Your task to perform on an android device: Open Google Chrome and open the bookmarks view Image 0: 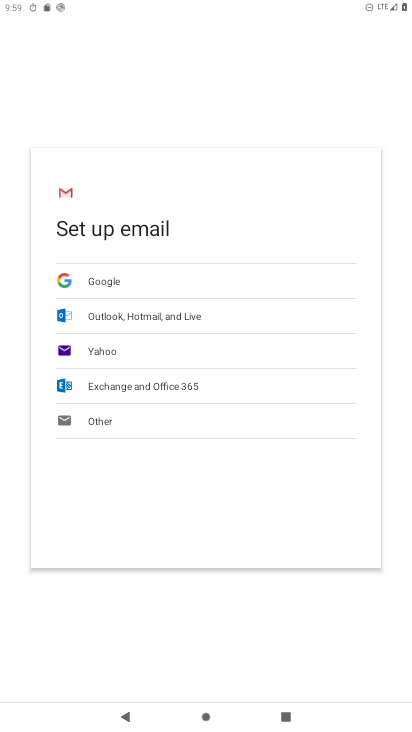
Step 0: press home button
Your task to perform on an android device: Open Google Chrome and open the bookmarks view Image 1: 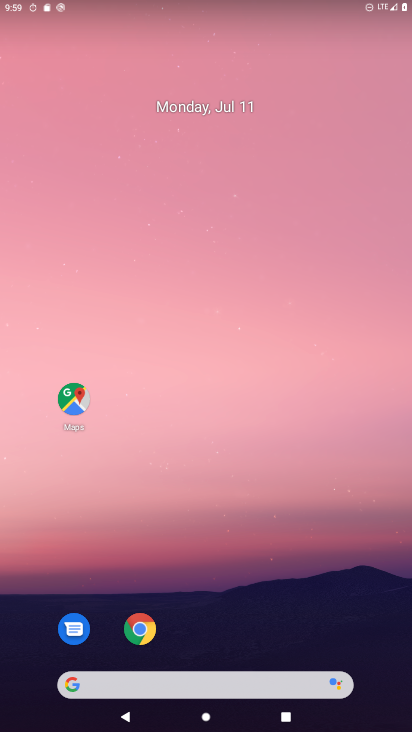
Step 1: click (132, 627)
Your task to perform on an android device: Open Google Chrome and open the bookmarks view Image 2: 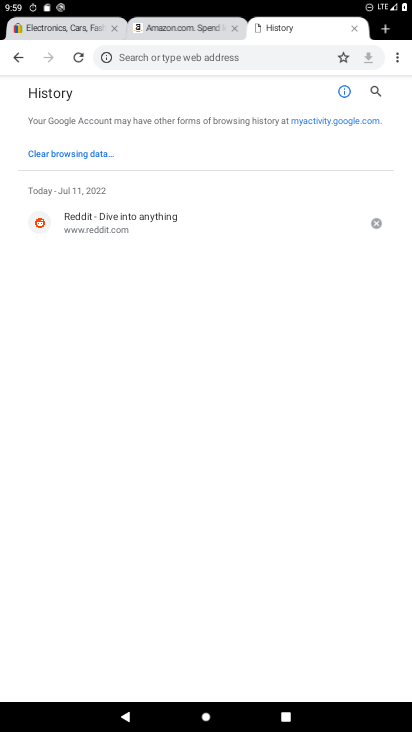
Step 2: click (392, 57)
Your task to perform on an android device: Open Google Chrome and open the bookmarks view Image 3: 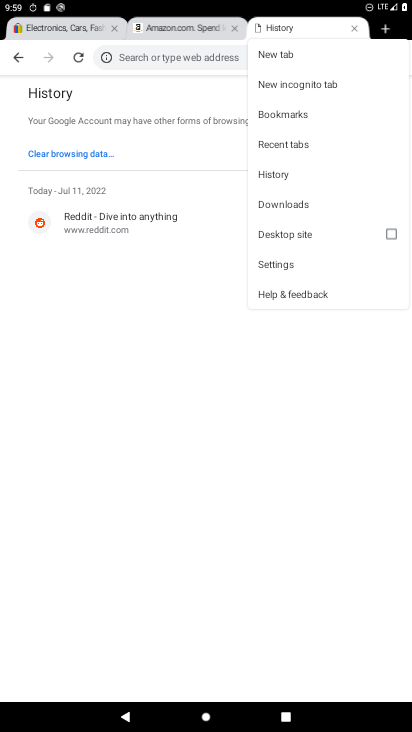
Step 3: click (319, 119)
Your task to perform on an android device: Open Google Chrome and open the bookmarks view Image 4: 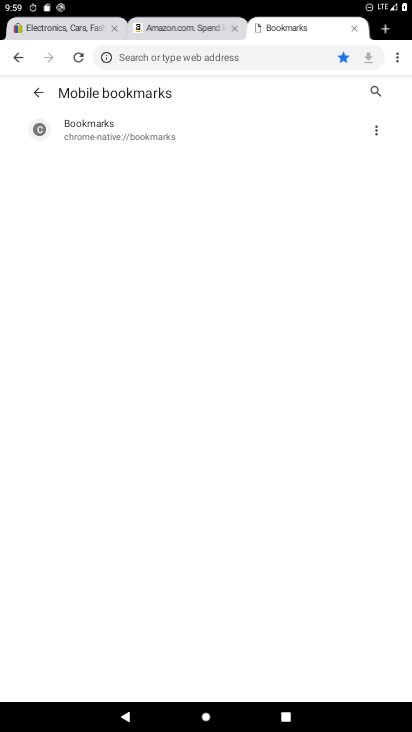
Step 4: task complete